Your task to perform on an android device: How big is the earth? Image 0: 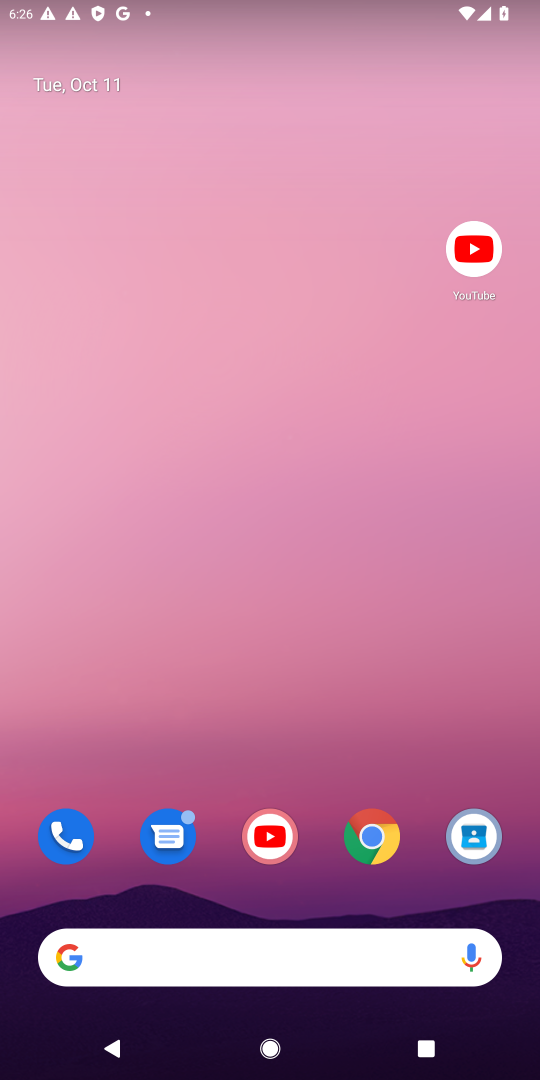
Step 0: click (370, 833)
Your task to perform on an android device: How big is the earth? Image 1: 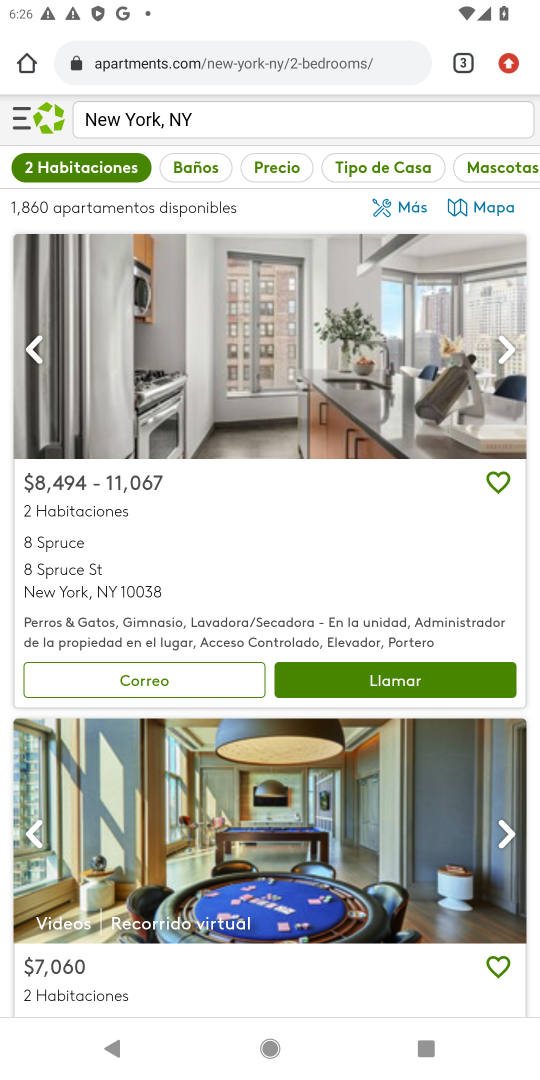
Step 1: click (292, 51)
Your task to perform on an android device: How big is the earth? Image 2: 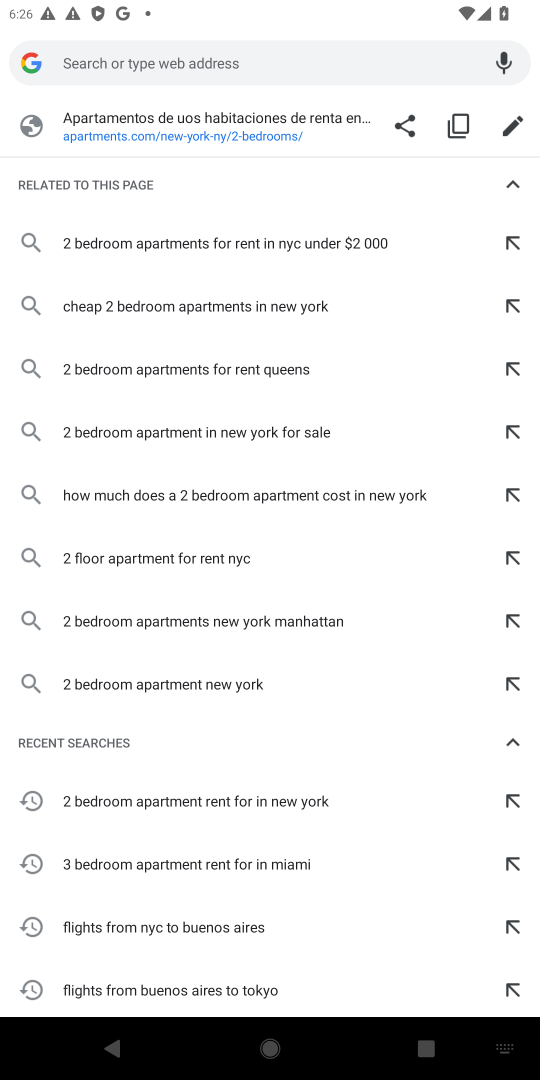
Step 2: type "How big is the earth"
Your task to perform on an android device: How big is the earth? Image 3: 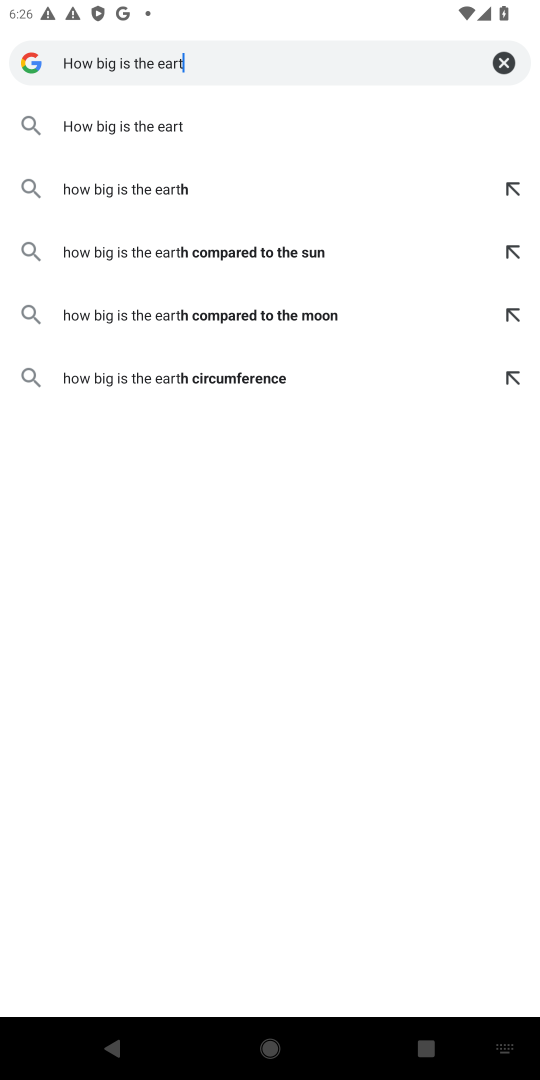
Step 3: press enter
Your task to perform on an android device: How big is the earth? Image 4: 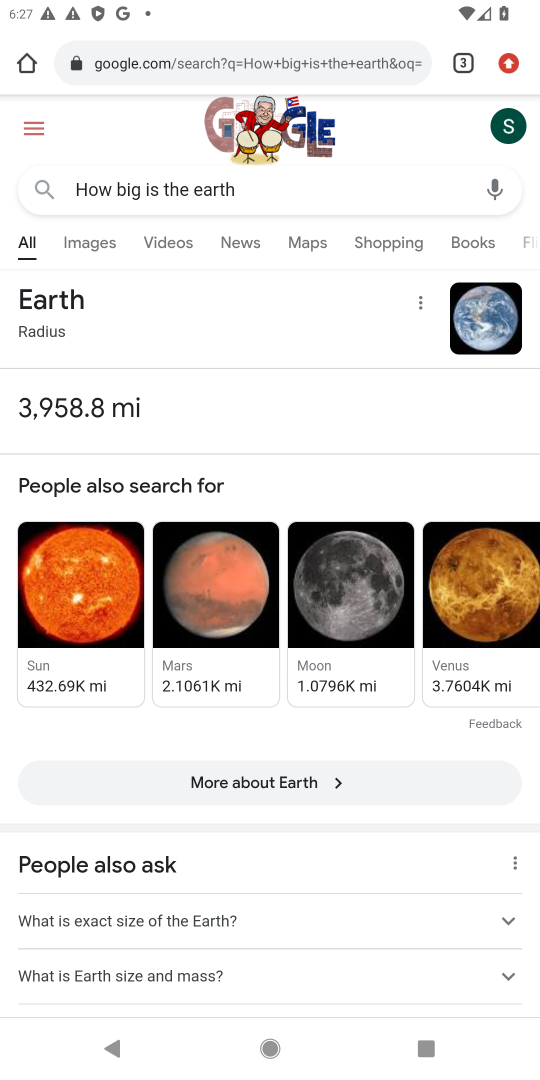
Step 4: task complete